Your task to perform on an android device: Open Google Chrome Image 0: 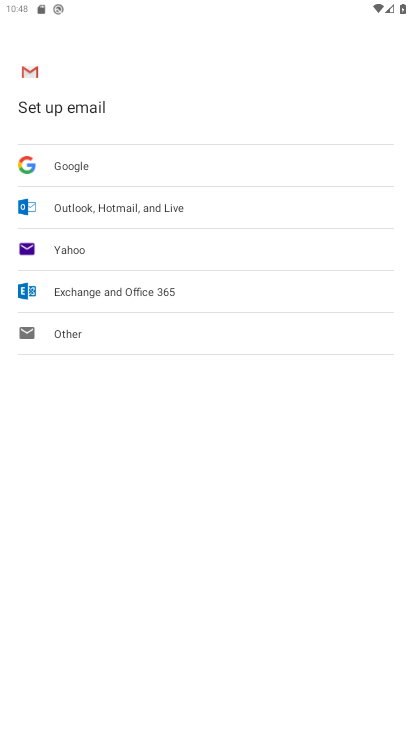
Step 0: press home button
Your task to perform on an android device: Open Google Chrome Image 1: 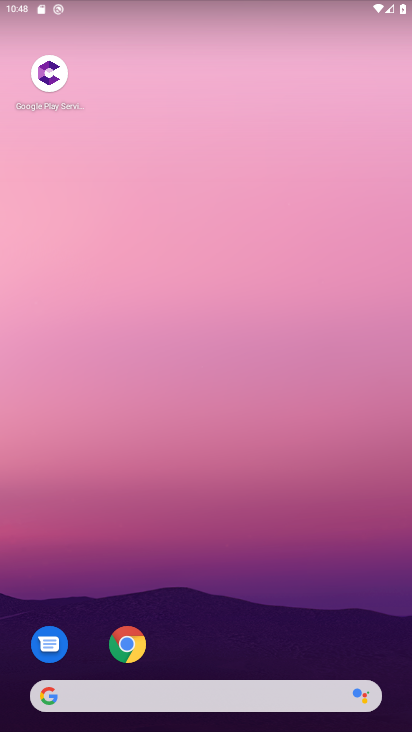
Step 1: click (138, 647)
Your task to perform on an android device: Open Google Chrome Image 2: 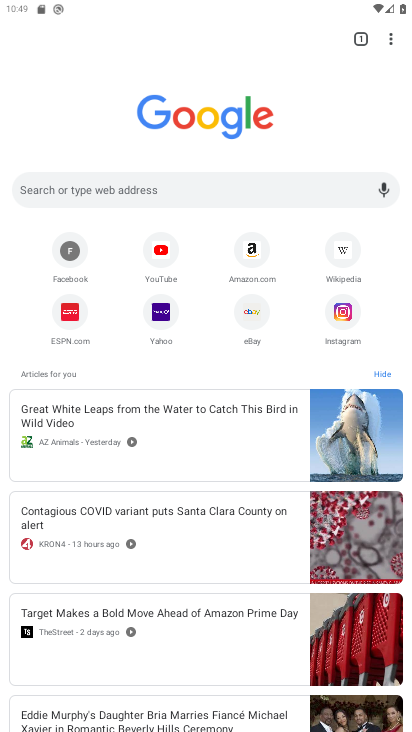
Step 2: task complete